Your task to perform on an android device: empty trash in the gmail app Image 0: 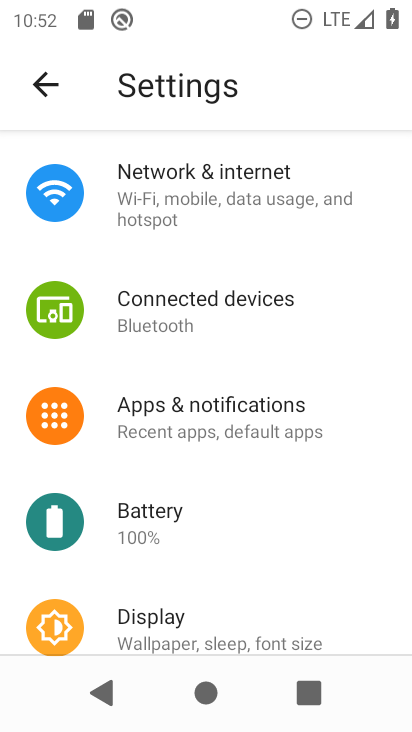
Step 0: press back button
Your task to perform on an android device: empty trash in the gmail app Image 1: 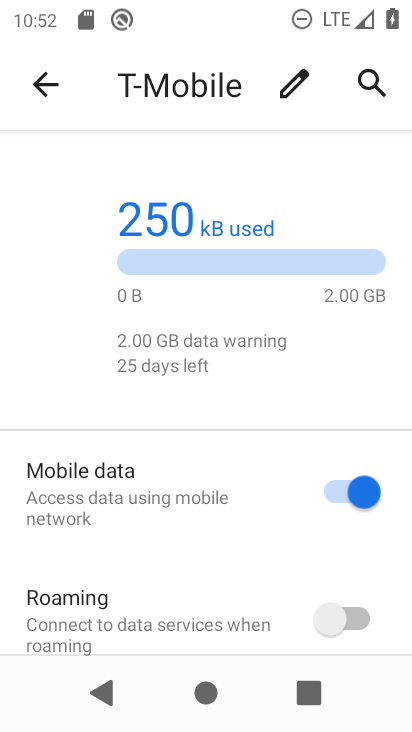
Step 1: press home button
Your task to perform on an android device: empty trash in the gmail app Image 2: 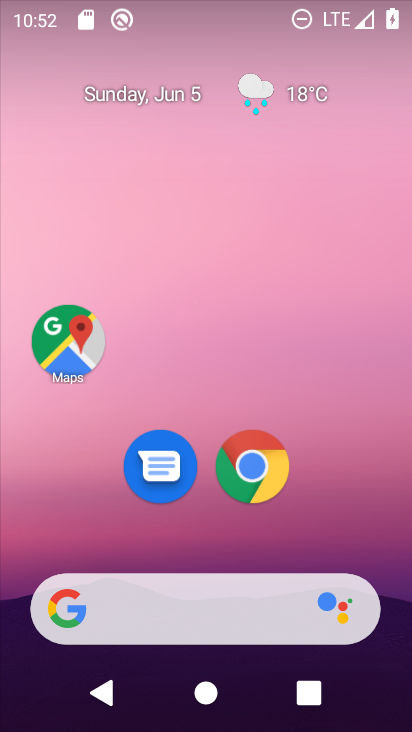
Step 2: drag from (365, 509) to (360, 134)
Your task to perform on an android device: empty trash in the gmail app Image 3: 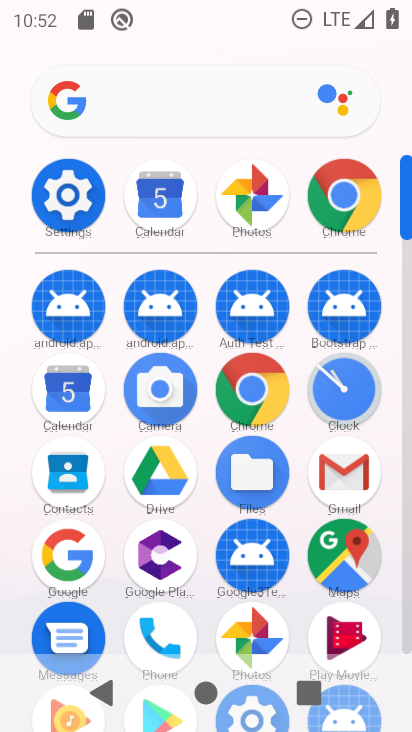
Step 3: drag from (22, 556) to (60, 240)
Your task to perform on an android device: empty trash in the gmail app Image 4: 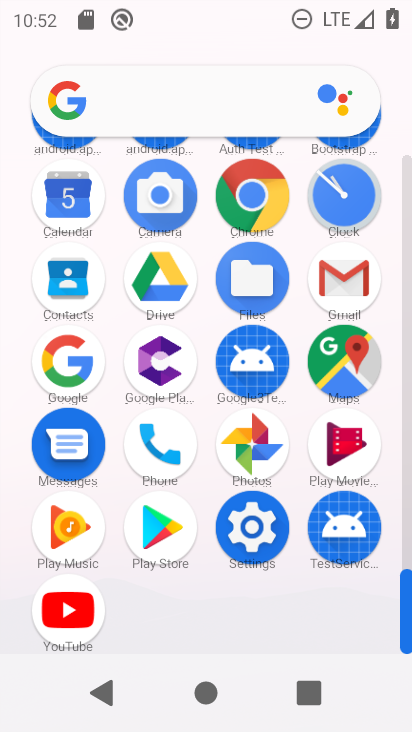
Step 4: click (344, 271)
Your task to perform on an android device: empty trash in the gmail app Image 5: 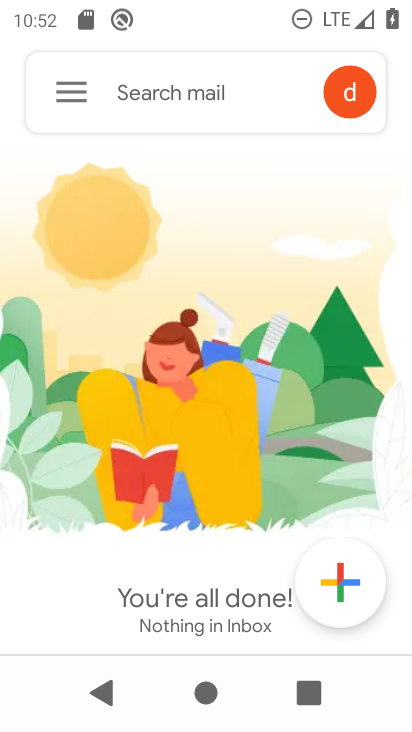
Step 5: click (76, 93)
Your task to perform on an android device: empty trash in the gmail app Image 6: 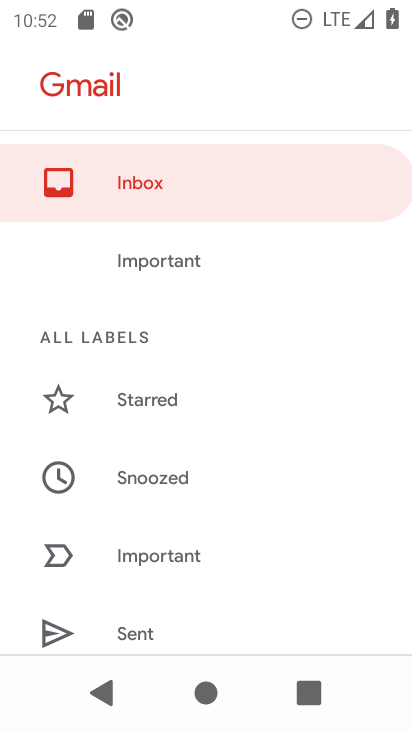
Step 6: drag from (217, 563) to (261, 178)
Your task to perform on an android device: empty trash in the gmail app Image 7: 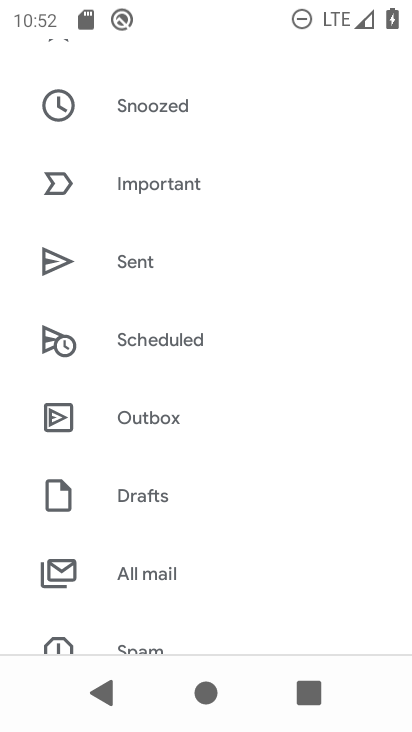
Step 7: drag from (240, 556) to (286, 195)
Your task to perform on an android device: empty trash in the gmail app Image 8: 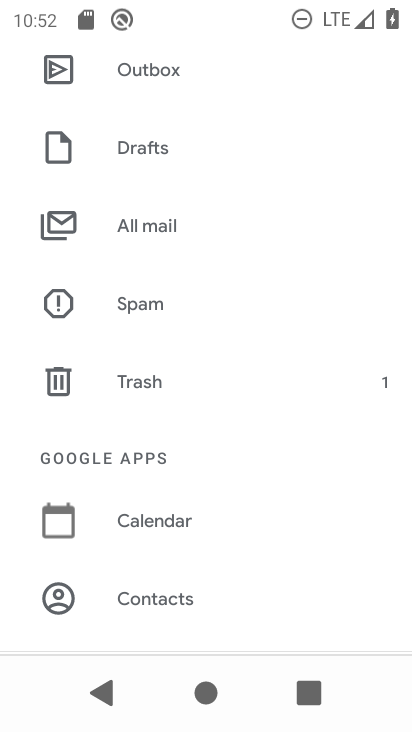
Step 8: drag from (290, 522) to (272, 222)
Your task to perform on an android device: empty trash in the gmail app Image 9: 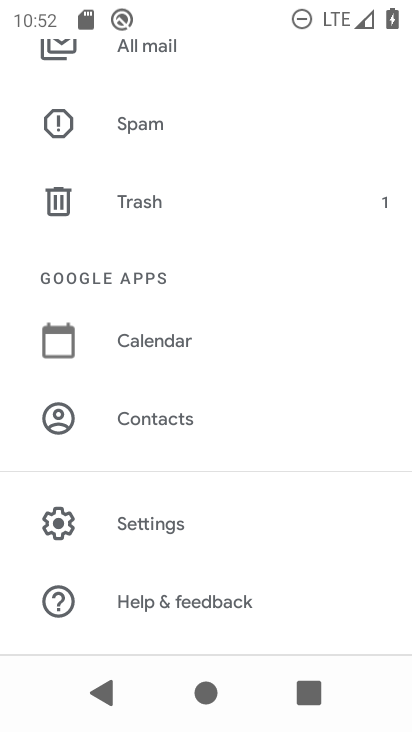
Step 9: click (146, 184)
Your task to perform on an android device: empty trash in the gmail app Image 10: 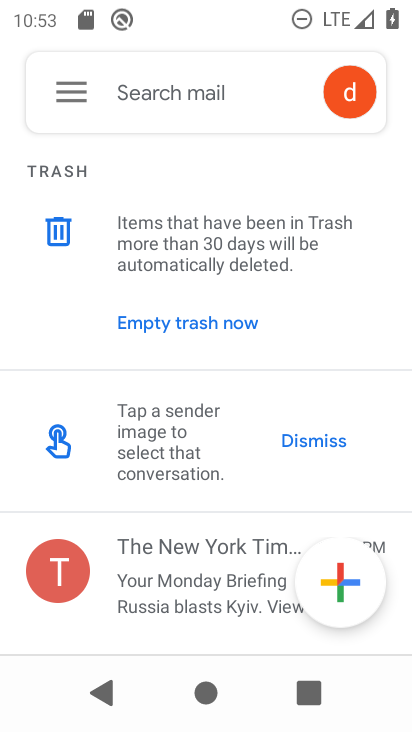
Step 10: click (67, 83)
Your task to perform on an android device: empty trash in the gmail app Image 11: 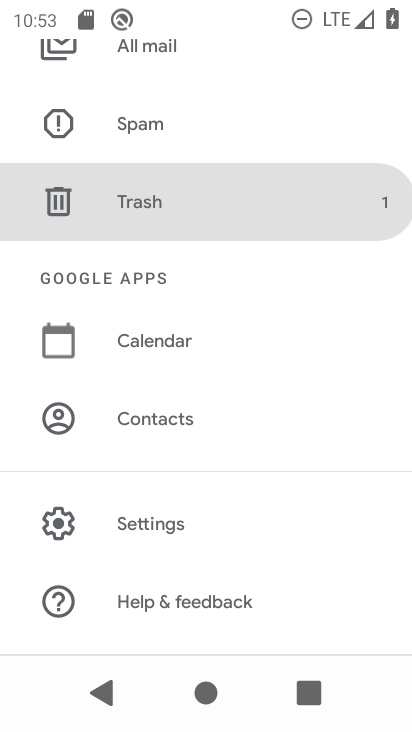
Step 11: click (187, 197)
Your task to perform on an android device: empty trash in the gmail app Image 12: 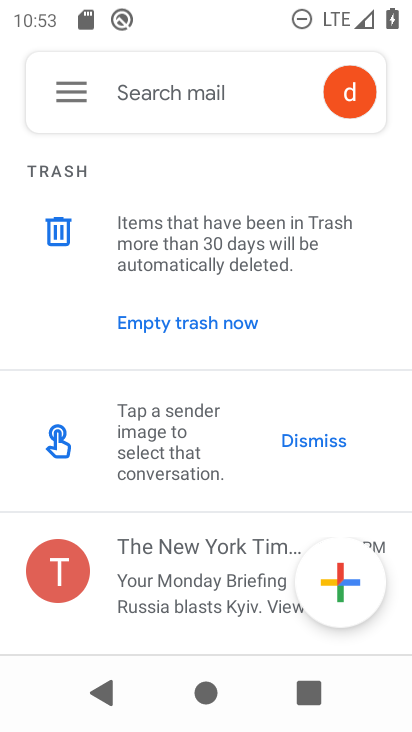
Step 12: task complete